Your task to perform on an android device: Open Maps and search for coffee Image 0: 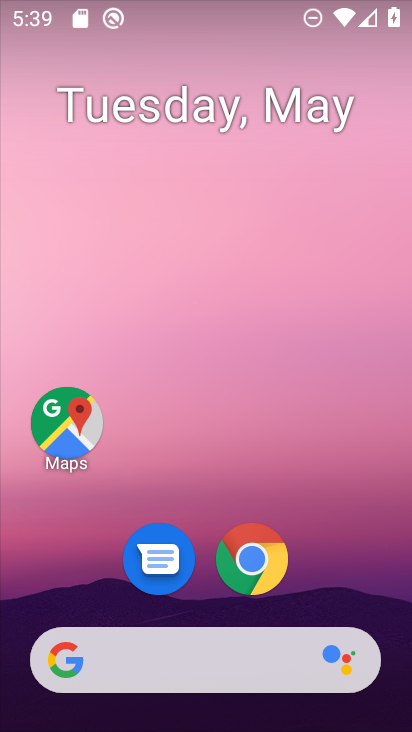
Step 0: drag from (301, 567) to (281, 114)
Your task to perform on an android device: Open Maps and search for coffee Image 1: 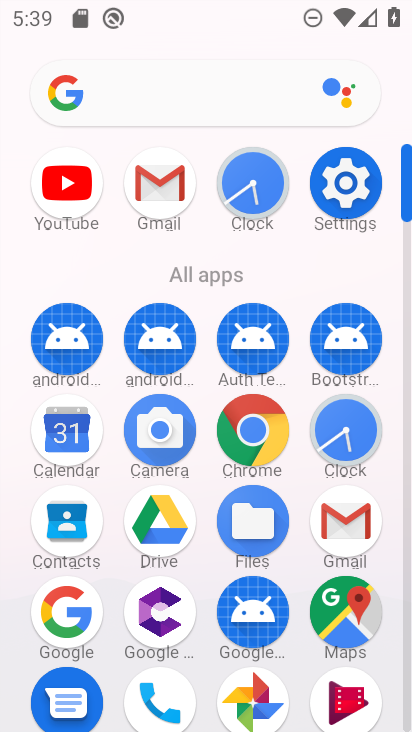
Step 1: click (349, 624)
Your task to perform on an android device: Open Maps and search for coffee Image 2: 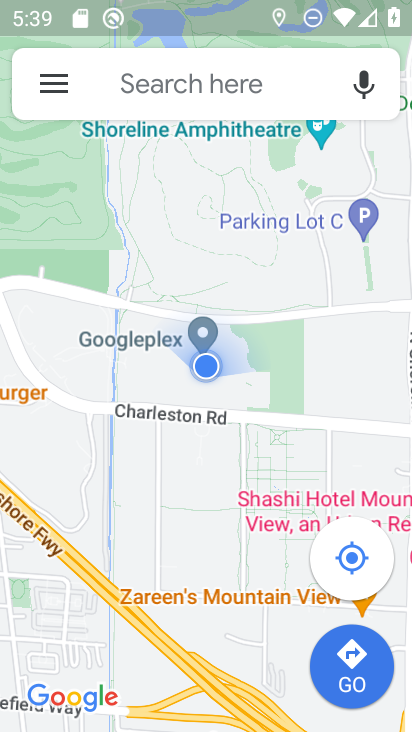
Step 2: click (186, 86)
Your task to perform on an android device: Open Maps and search for coffee Image 3: 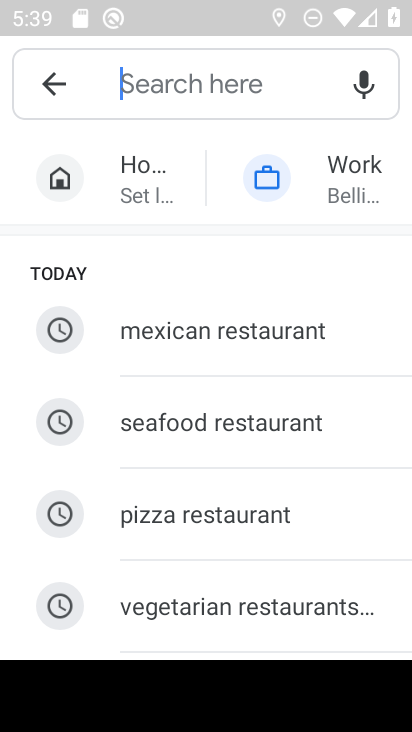
Step 3: drag from (197, 550) to (233, 275)
Your task to perform on an android device: Open Maps and search for coffee Image 4: 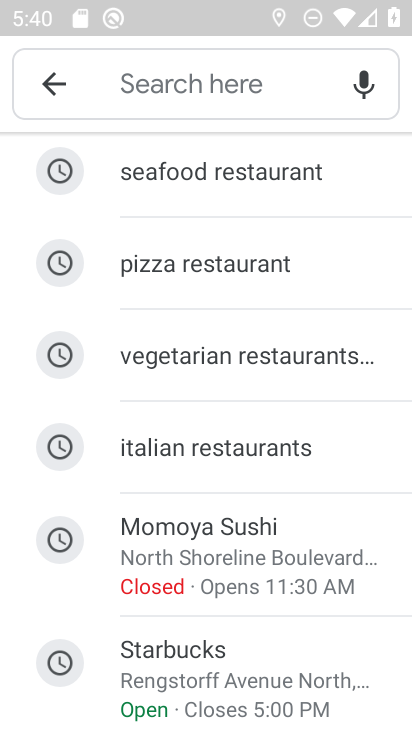
Step 4: click (173, 100)
Your task to perform on an android device: Open Maps and search for coffee Image 5: 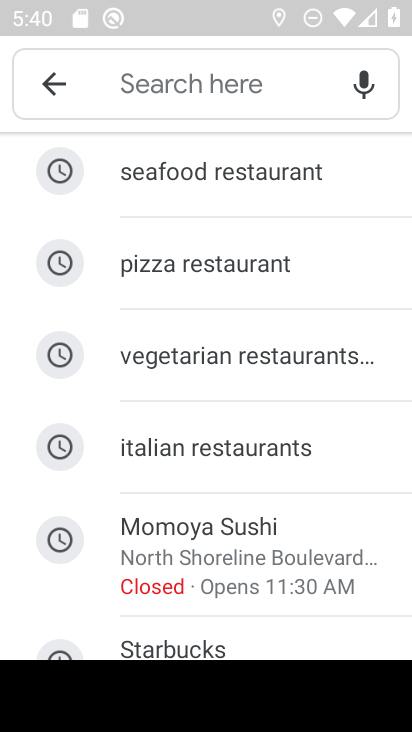
Step 5: type "coffee"
Your task to perform on an android device: Open Maps and search for coffee Image 6: 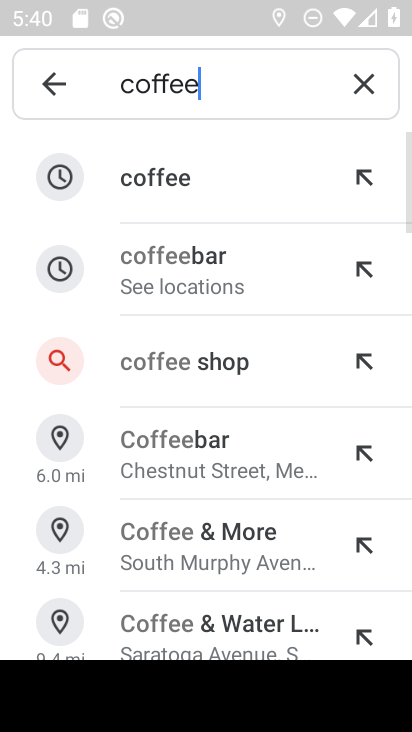
Step 6: click (172, 181)
Your task to perform on an android device: Open Maps and search for coffee Image 7: 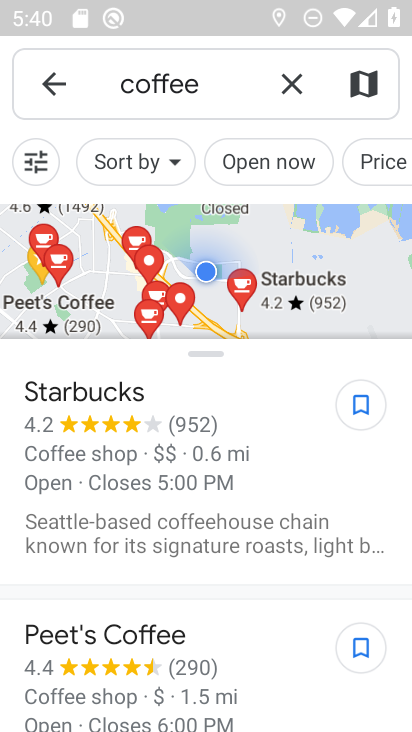
Step 7: task complete